Your task to perform on an android device: turn off picture-in-picture Image 0: 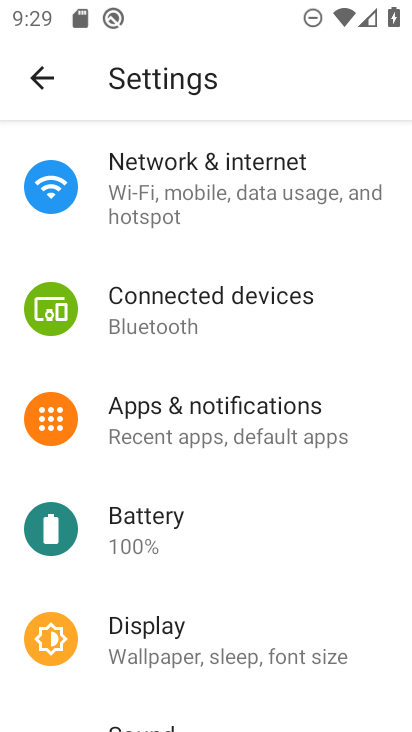
Step 0: drag from (240, 174) to (223, 520)
Your task to perform on an android device: turn off picture-in-picture Image 1: 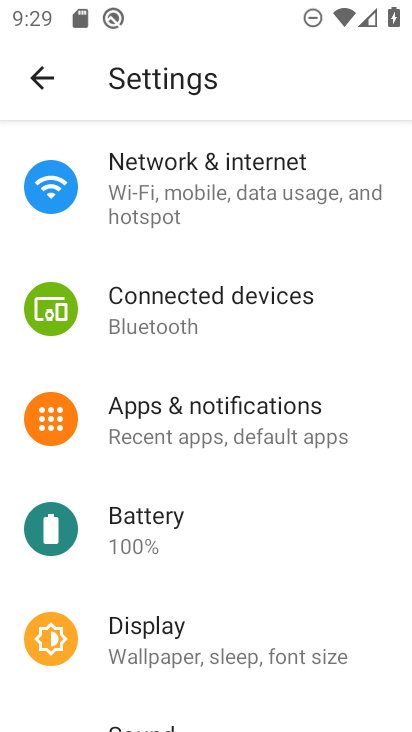
Step 1: click (232, 427)
Your task to perform on an android device: turn off picture-in-picture Image 2: 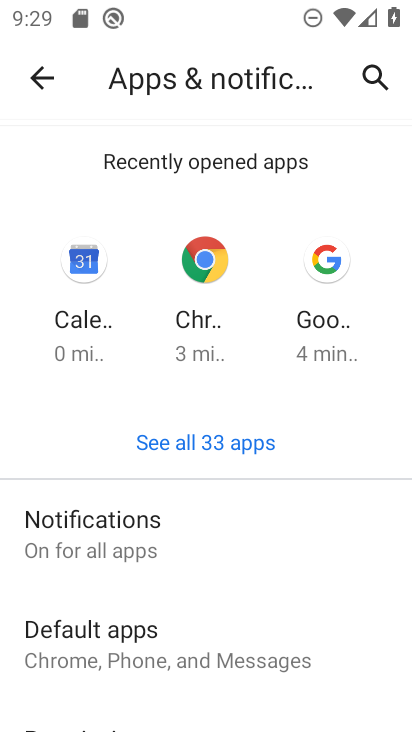
Step 2: drag from (193, 702) to (194, 440)
Your task to perform on an android device: turn off picture-in-picture Image 3: 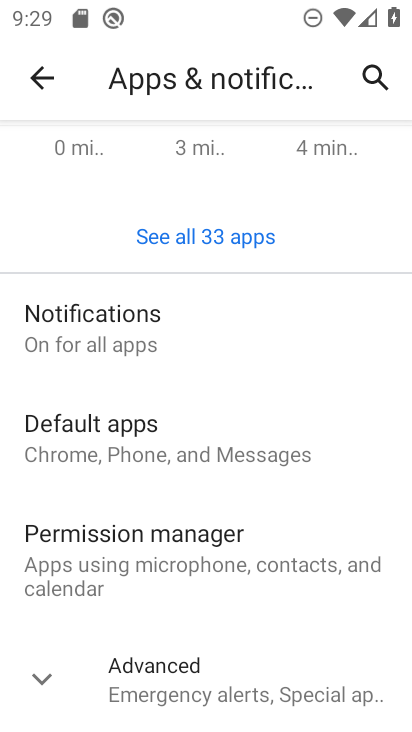
Step 3: click (144, 683)
Your task to perform on an android device: turn off picture-in-picture Image 4: 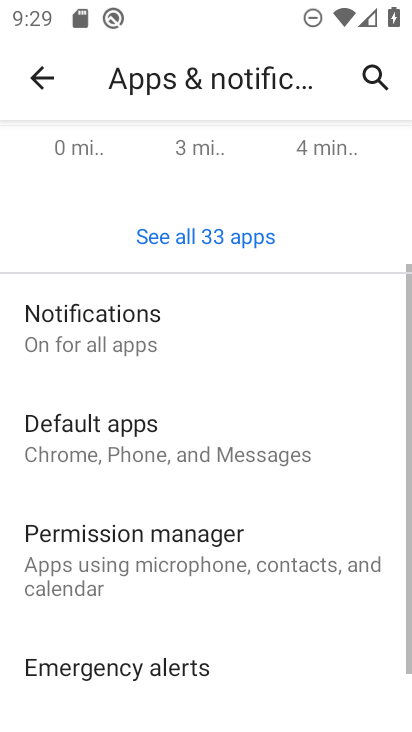
Step 4: drag from (188, 704) to (176, 417)
Your task to perform on an android device: turn off picture-in-picture Image 5: 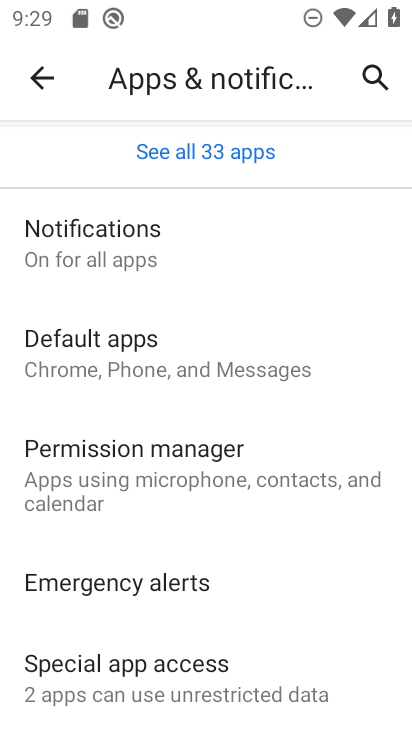
Step 5: click (164, 668)
Your task to perform on an android device: turn off picture-in-picture Image 6: 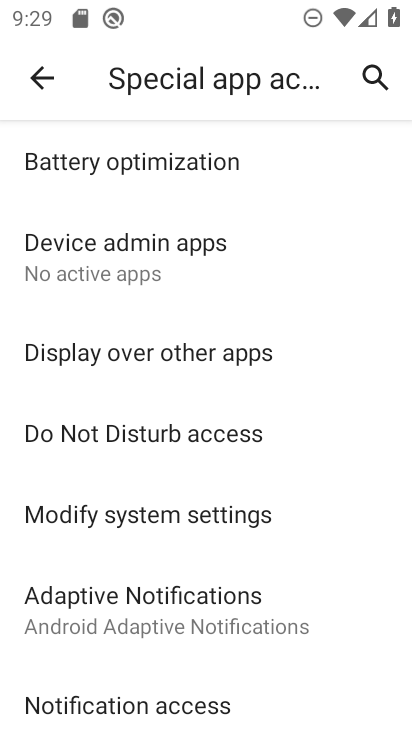
Step 6: drag from (130, 651) to (120, 329)
Your task to perform on an android device: turn off picture-in-picture Image 7: 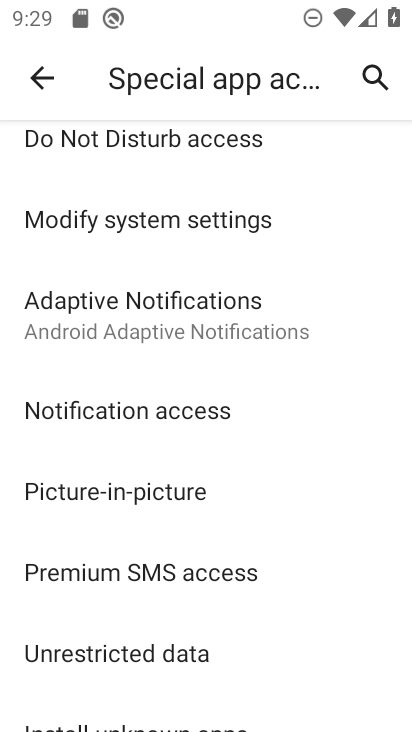
Step 7: click (124, 485)
Your task to perform on an android device: turn off picture-in-picture Image 8: 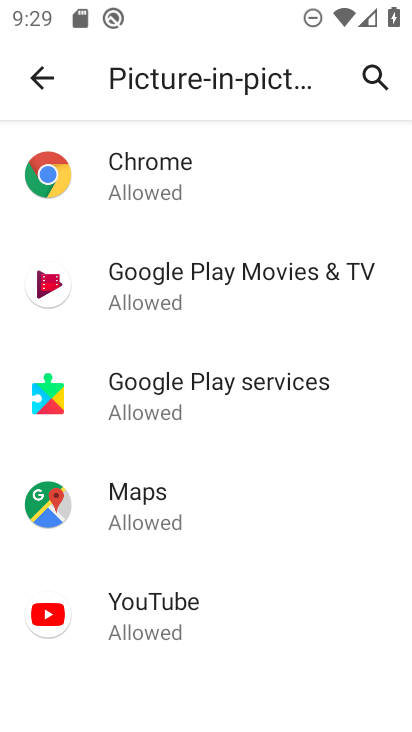
Step 8: click (140, 621)
Your task to perform on an android device: turn off picture-in-picture Image 9: 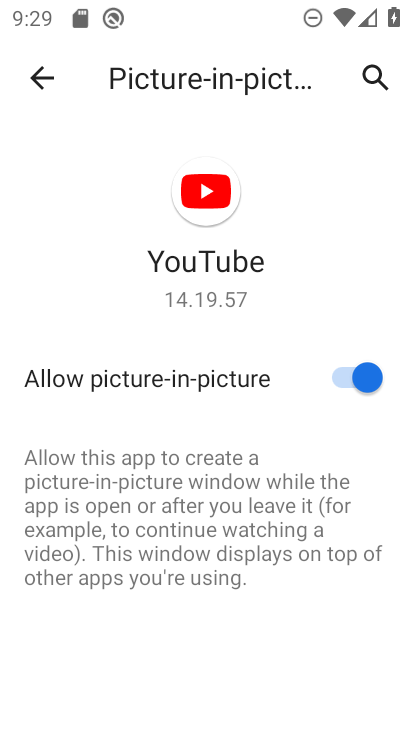
Step 9: click (343, 368)
Your task to perform on an android device: turn off picture-in-picture Image 10: 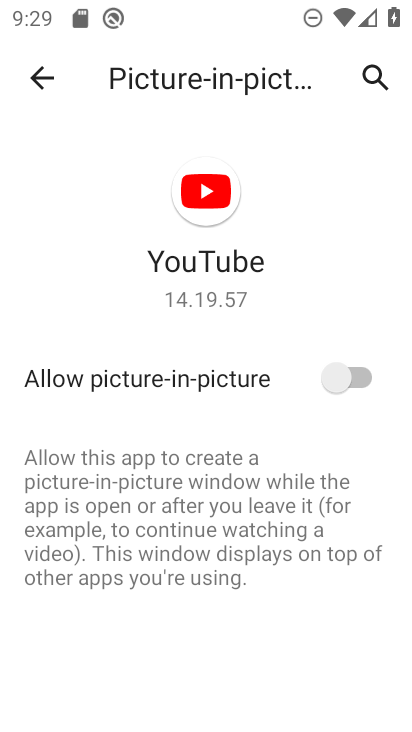
Step 10: task complete